Your task to perform on an android device: toggle javascript in the chrome app Image 0: 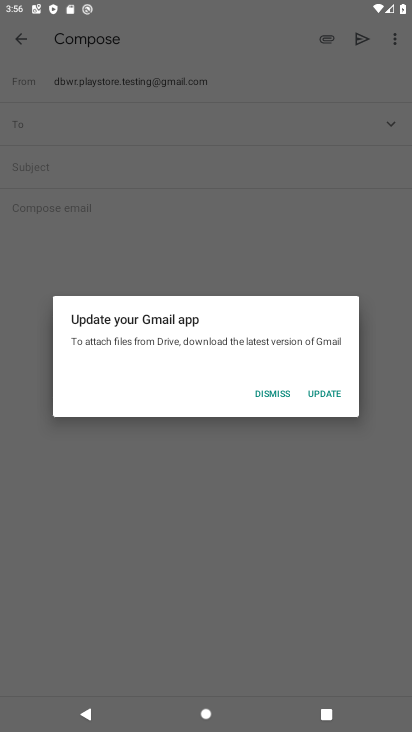
Step 0: press back button
Your task to perform on an android device: toggle javascript in the chrome app Image 1: 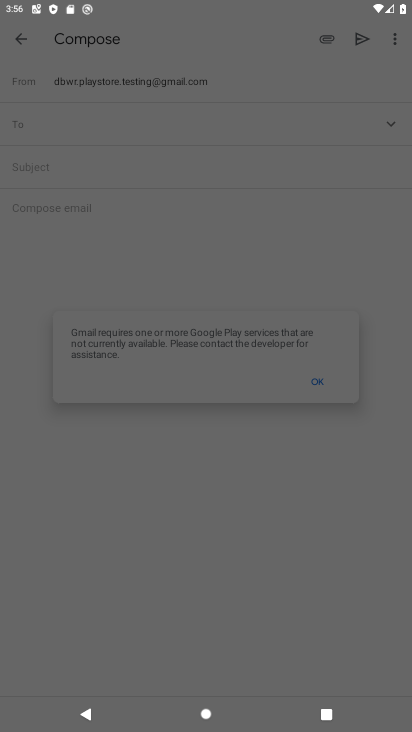
Step 1: press back button
Your task to perform on an android device: toggle javascript in the chrome app Image 2: 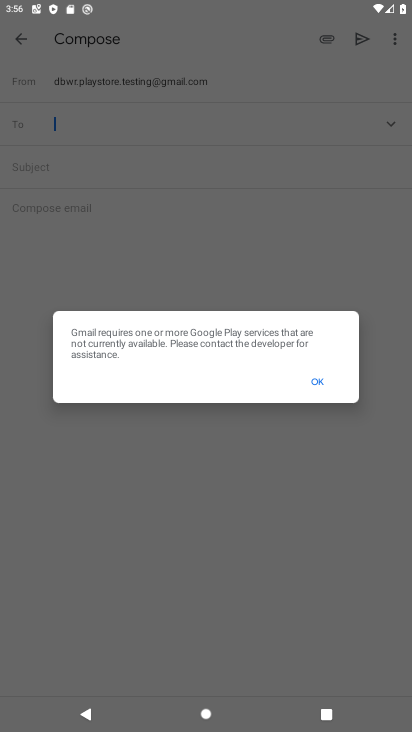
Step 2: press home button
Your task to perform on an android device: toggle javascript in the chrome app Image 3: 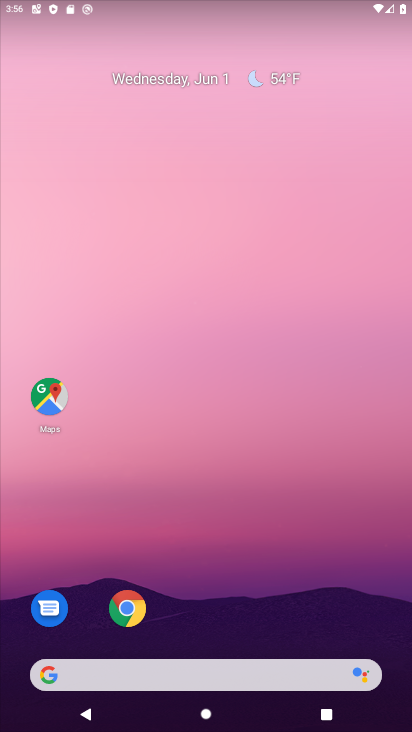
Step 3: click (127, 614)
Your task to perform on an android device: toggle javascript in the chrome app Image 4: 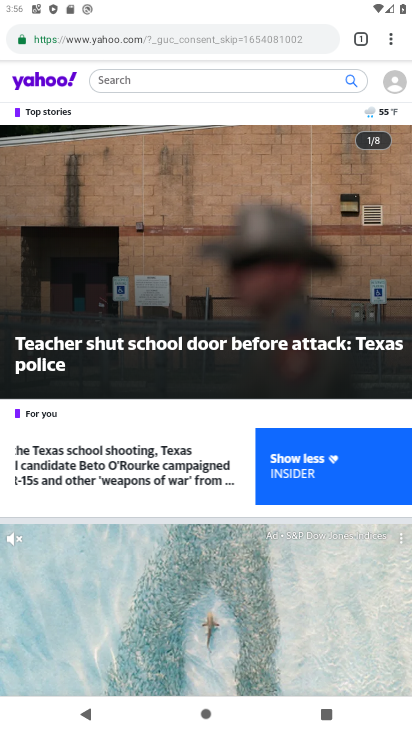
Step 4: click (393, 42)
Your task to perform on an android device: toggle javascript in the chrome app Image 5: 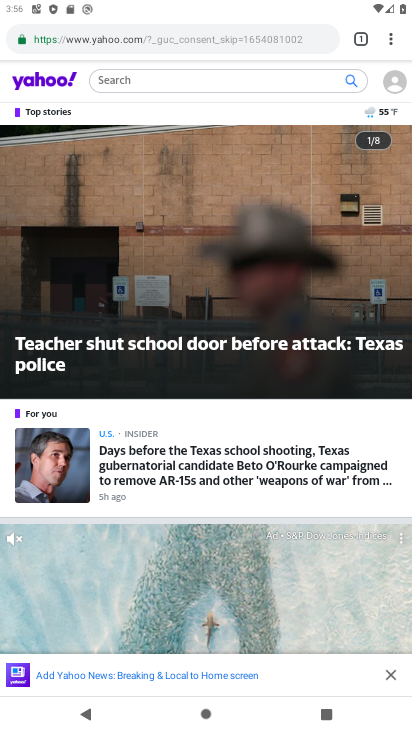
Step 5: click (396, 43)
Your task to perform on an android device: toggle javascript in the chrome app Image 6: 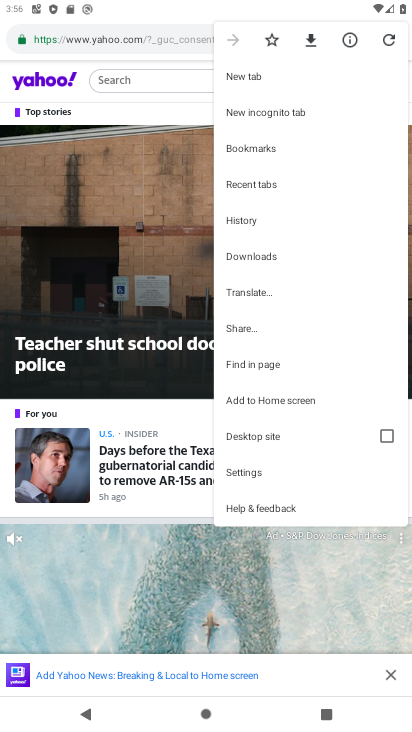
Step 6: click (268, 476)
Your task to perform on an android device: toggle javascript in the chrome app Image 7: 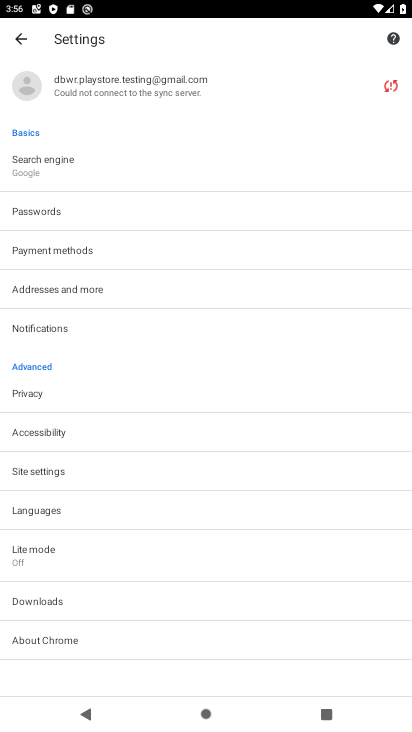
Step 7: click (31, 471)
Your task to perform on an android device: toggle javascript in the chrome app Image 8: 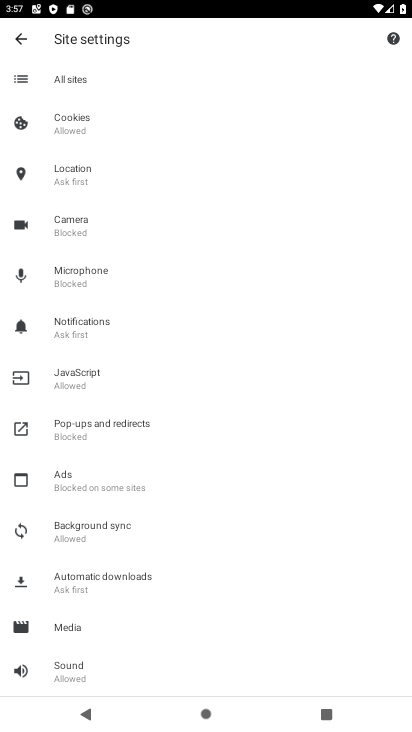
Step 8: click (71, 389)
Your task to perform on an android device: toggle javascript in the chrome app Image 9: 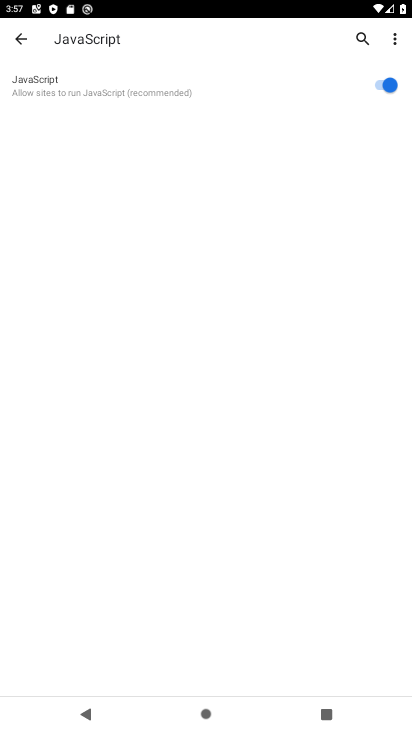
Step 9: click (384, 80)
Your task to perform on an android device: toggle javascript in the chrome app Image 10: 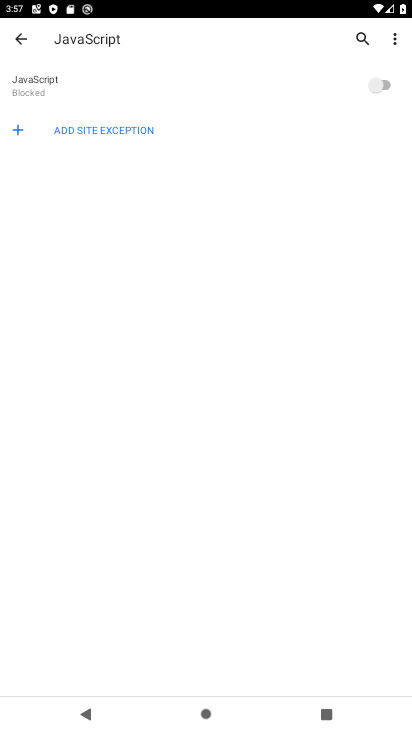
Step 10: task complete